Your task to perform on an android device: Open Google Chrome and open the bookmarks view Image 0: 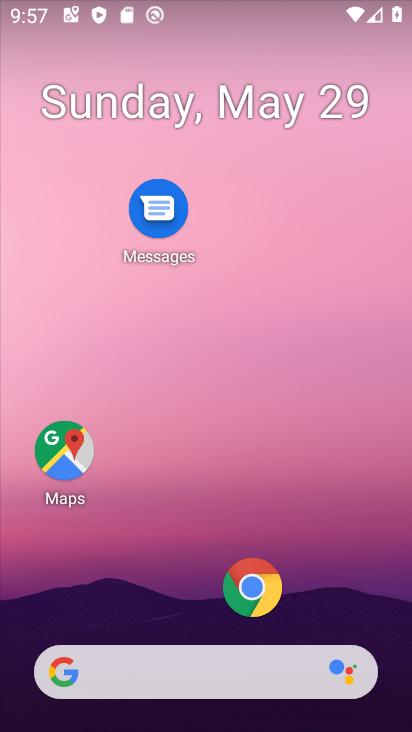
Step 0: click (251, 574)
Your task to perform on an android device: Open Google Chrome and open the bookmarks view Image 1: 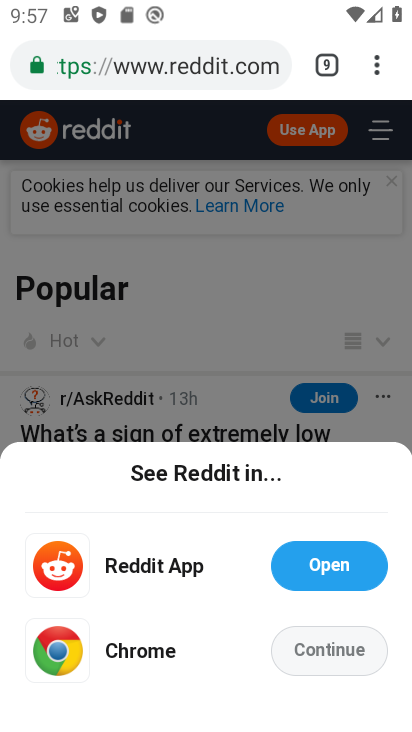
Step 1: task complete